Your task to perform on an android device: toggle notification dots Image 0: 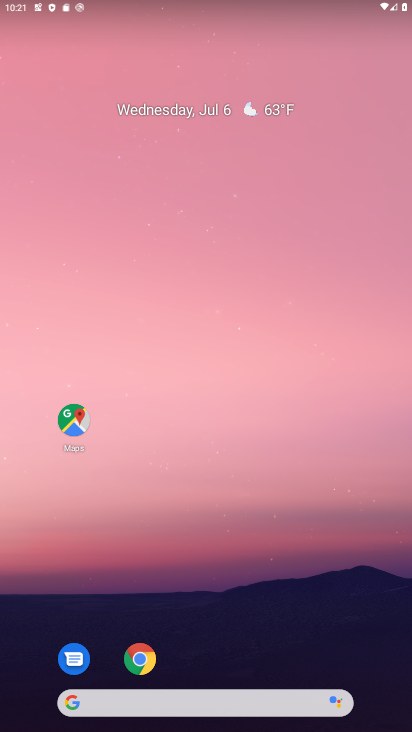
Step 0: drag from (207, 529) to (259, 0)
Your task to perform on an android device: toggle notification dots Image 1: 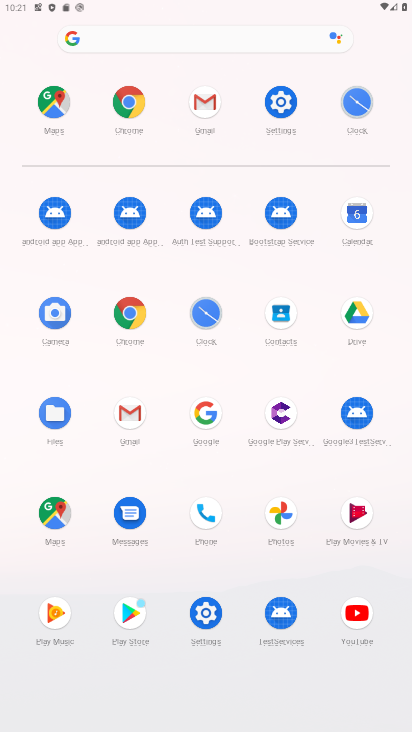
Step 1: click (284, 99)
Your task to perform on an android device: toggle notification dots Image 2: 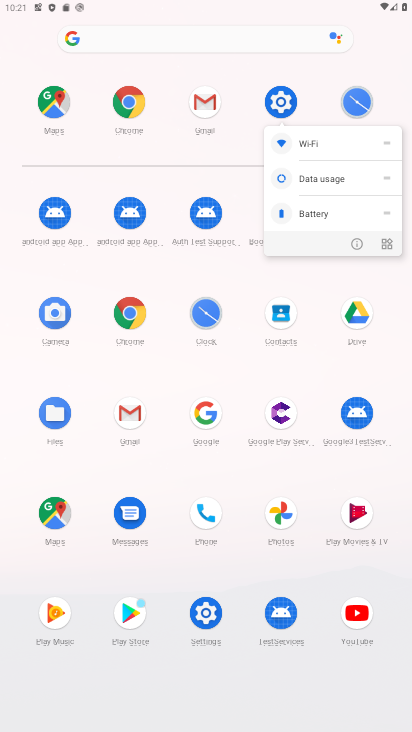
Step 2: click (349, 242)
Your task to perform on an android device: toggle notification dots Image 3: 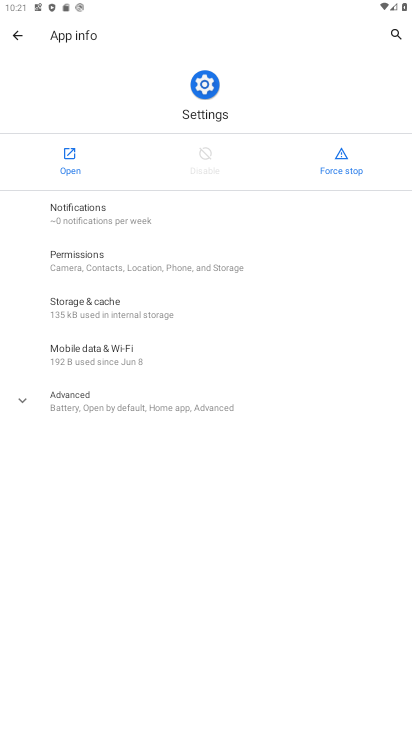
Step 3: click (51, 153)
Your task to perform on an android device: toggle notification dots Image 4: 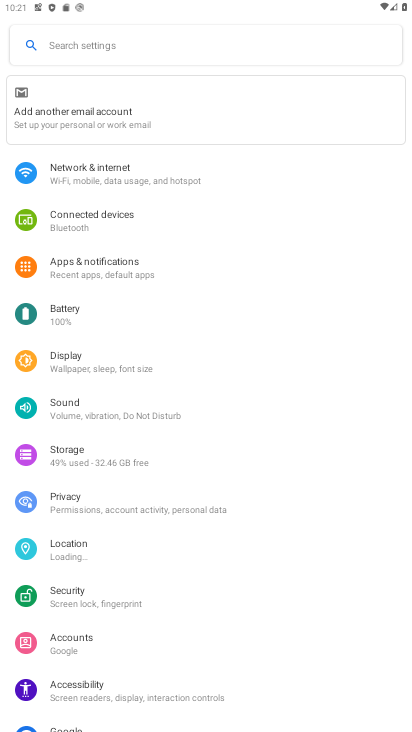
Step 4: click (166, 270)
Your task to perform on an android device: toggle notification dots Image 5: 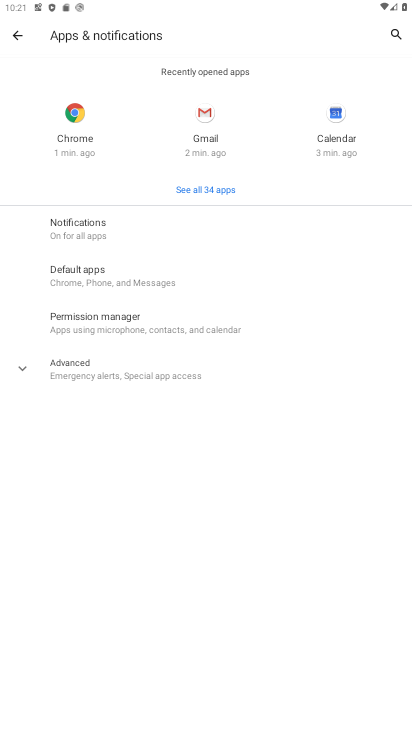
Step 5: click (173, 226)
Your task to perform on an android device: toggle notification dots Image 6: 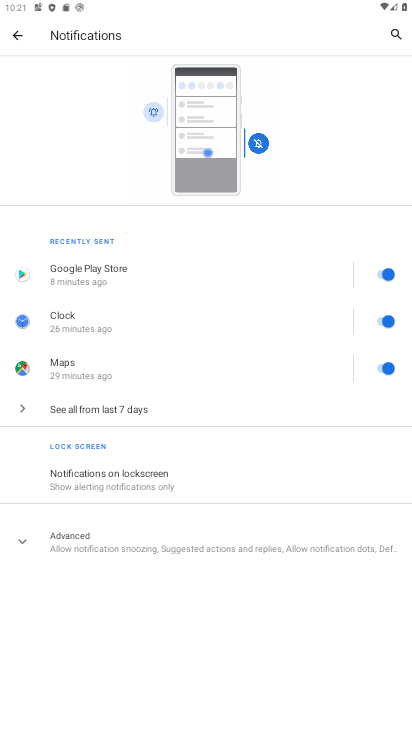
Step 6: click (93, 528)
Your task to perform on an android device: toggle notification dots Image 7: 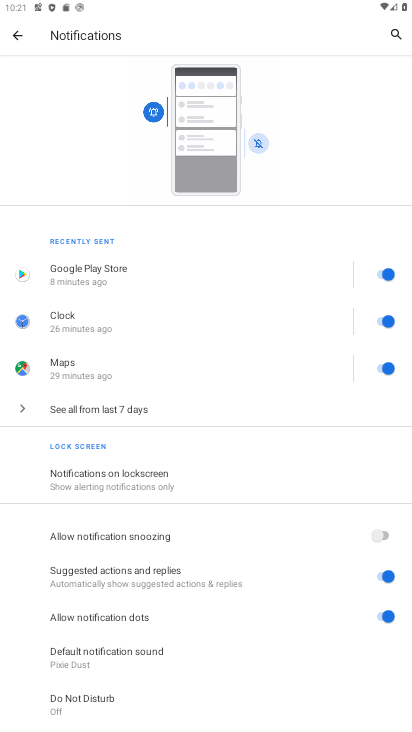
Step 7: click (395, 612)
Your task to perform on an android device: toggle notification dots Image 8: 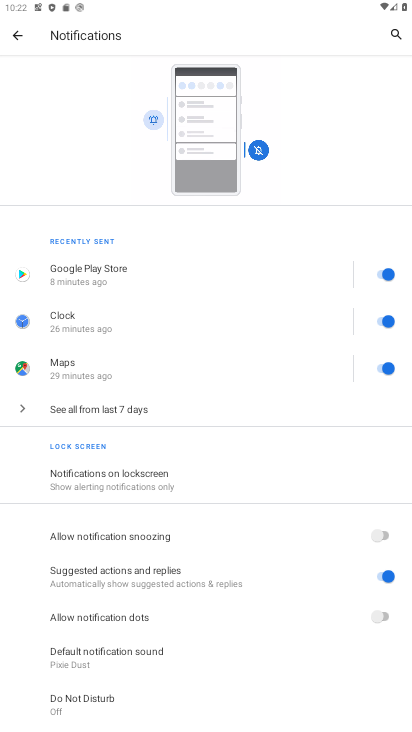
Step 8: task complete